Your task to perform on an android device: Go to wifi settings Image 0: 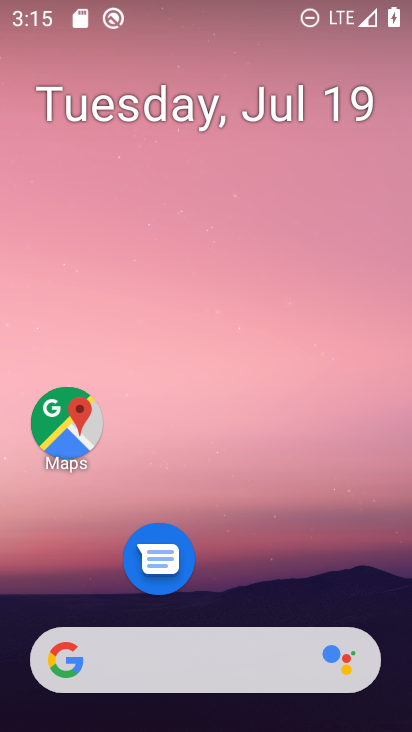
Step 0: drag from (223, 679) to (291, 219)
Your task to perform on an android device: Go to wifi settings Image 1: 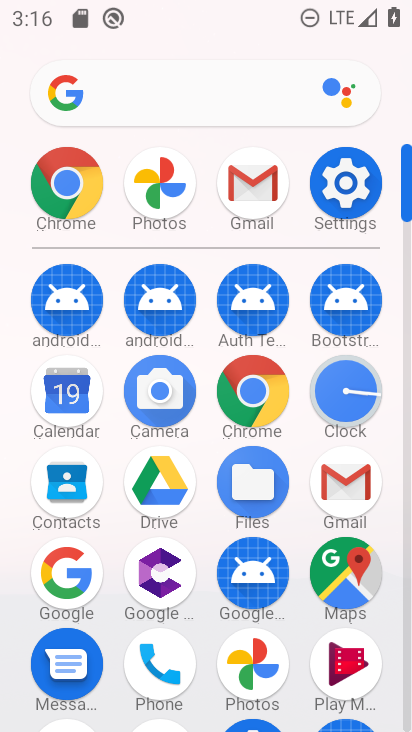
Step 1: click (341, 198)
Your task to perform on an android device: Go to wifi settings Image 2: 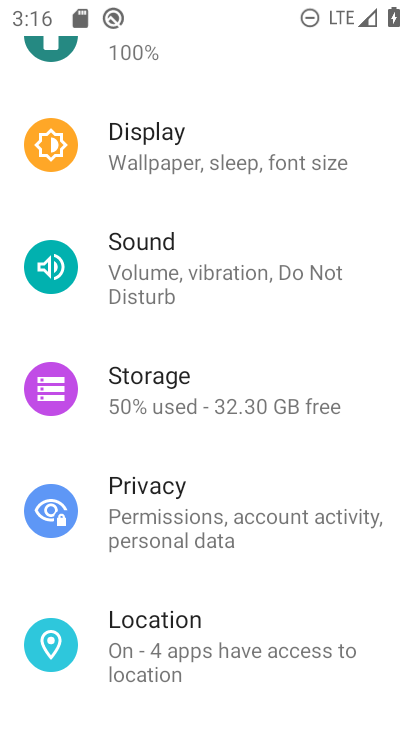
Step 2: drag from (213, 307) to (136, 719)
Your task to perform on an android device: Go to wifi settings Image 3: 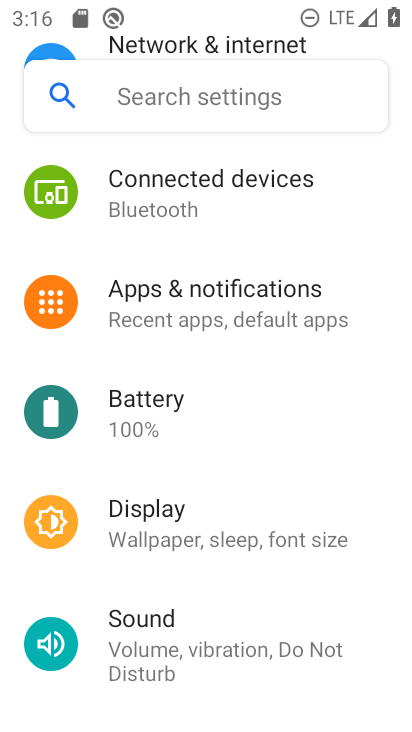
Step 3: drag from (224, 315) to (207, 720)
Your task to perform on an android device: Go to wifi settings Image 4: 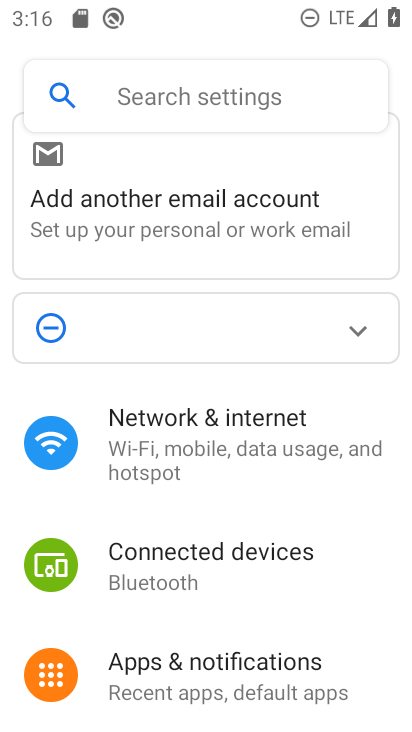
Step 4: click (203, 454)
Your task to perform on an android device: Go to wifi settings Image 5: 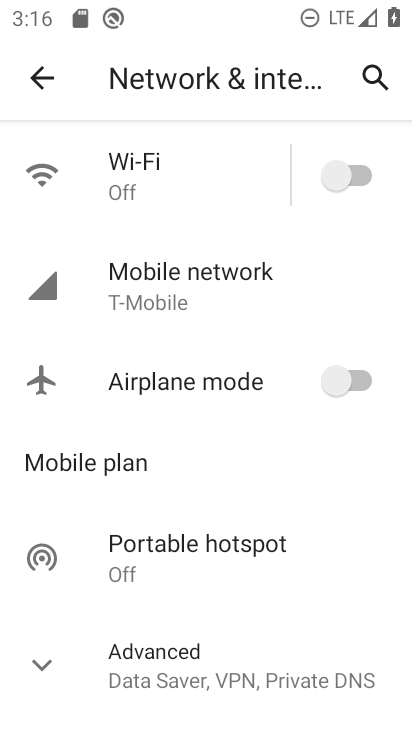
Step 5: click (175, 189)
Your task to perform on an android device: Go to wifi settings Image 6: 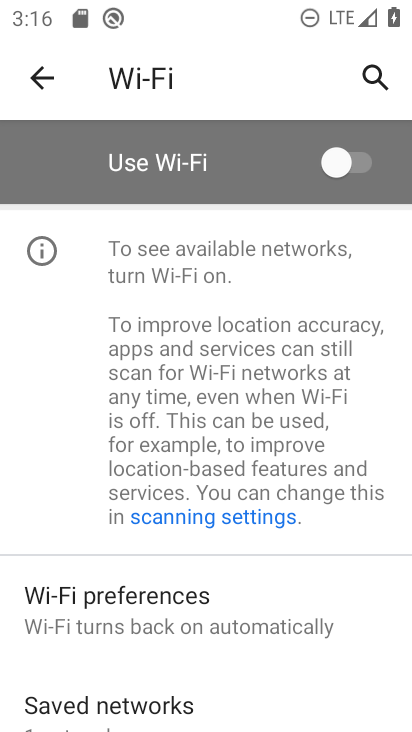
Step 6: task complete